Your task to perform on an android device: turn on data saver in the chrome app Image 0: 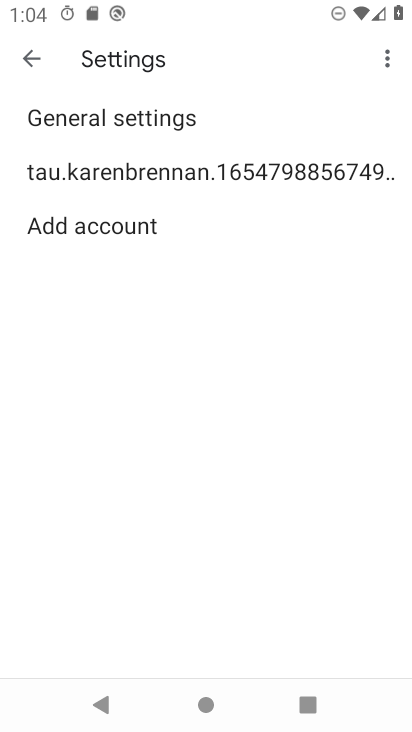
Step 0: press home button
Your task to perform on an android device: turn on data saver in the chrome app Image 1: 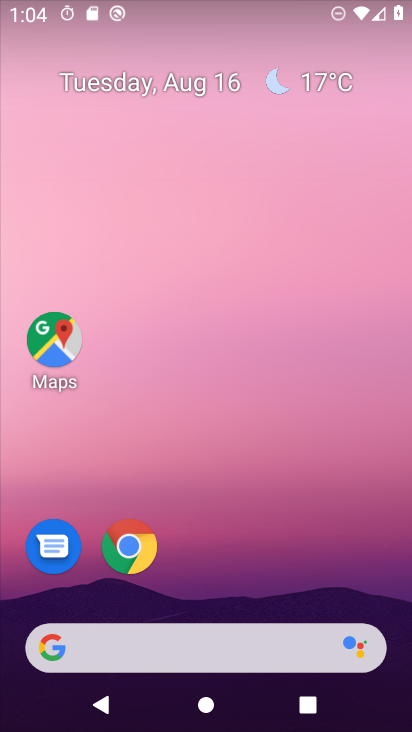
Step 1: drag from (231, 614) to (237, 94)
Your task to perform on an android device: turn on data saver in the chrome app Image 2: 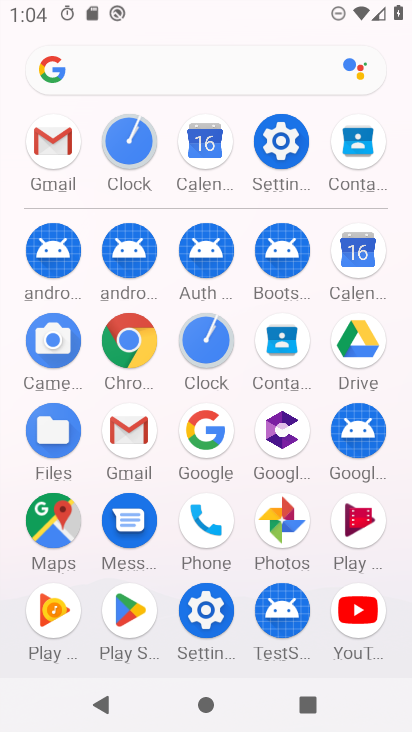
Step 2: click (123, 342)
Your task to perform on an android device: turn on data saver in the chrome app Image 3: 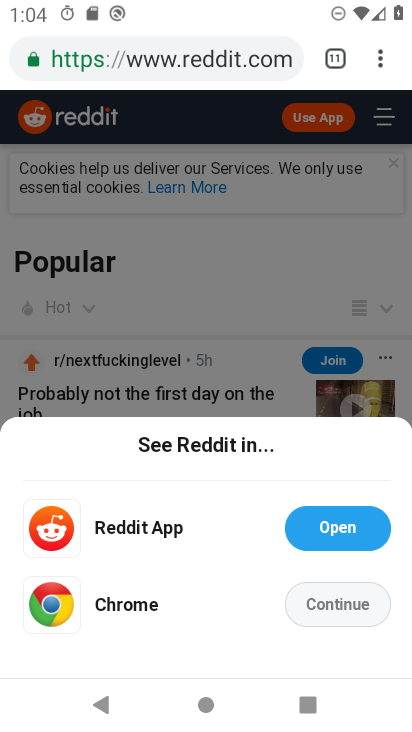
Step 3: click (381, 63)
Your task to perform on an android device: turn on data saver in the chrome app Image 4: 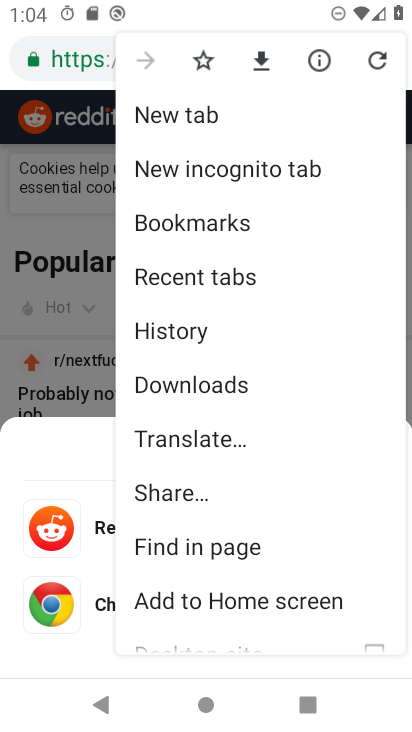
Step 4: drag from (189, 619) to (213, 238)
Your task to perform on an android device: turn on data saver in the chrome app Image 5: 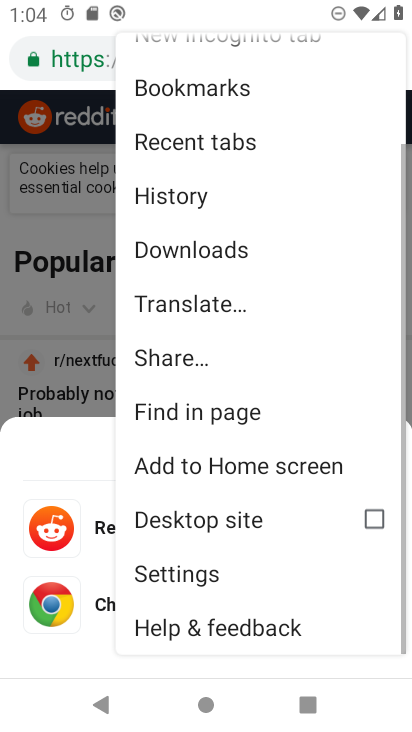
Step 5: click (193, 569)
Your task to perform on an android device: turn on data saver in the chrome app Image 6: 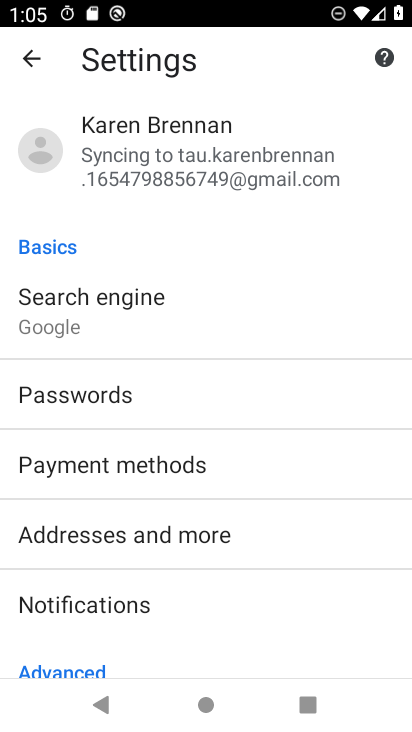
Step 6: drag from (119, 637) to (130, 414)
Your task to perform on an android device: turn on data saver in the chrome app Image 7: 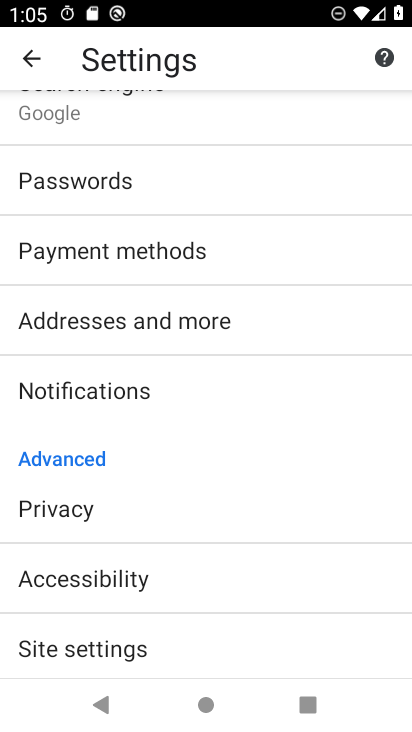
Step 7: drag from (110, 625) to (130, 437)
Your task to perform on an android device: turn on data saver in the chrome app Image 8: 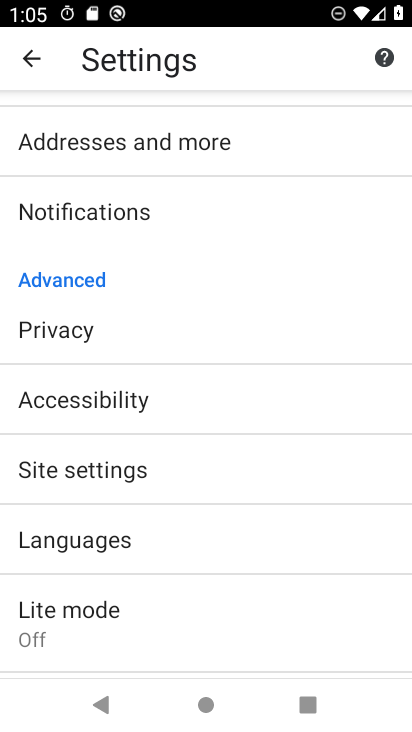
Step 8: click (88, 617)
Your task to perform on an android device: turn on data saver in the chrome app Image 9: 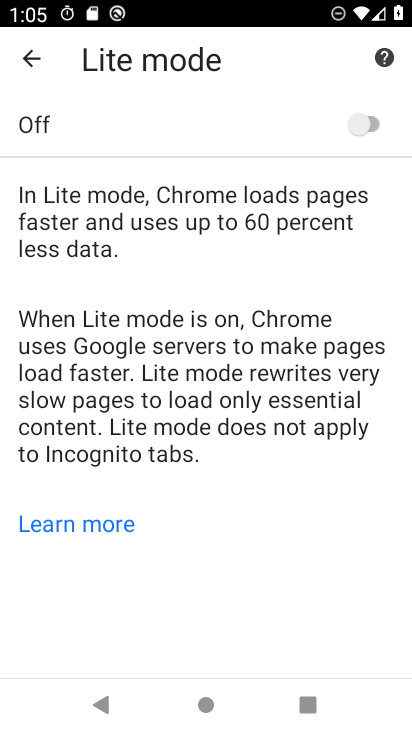
Step 9: click (373, 123)
Your task to perform on an android device: turn on data saver in the chrome app Image 10: 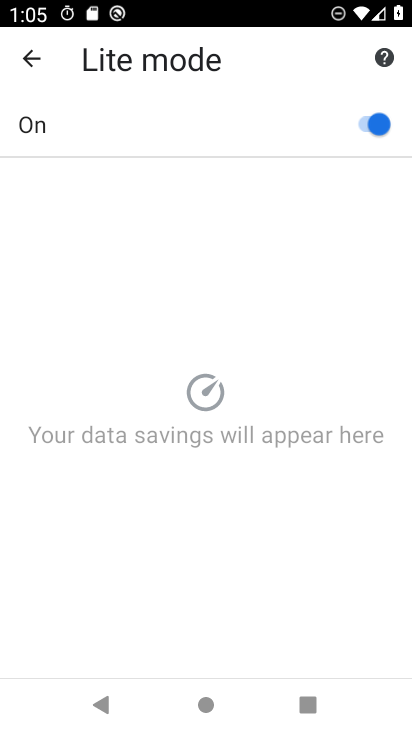
Step 10: task complete